Your task to perform on an android device: toggle notifications settings in the gmail app Image 0: 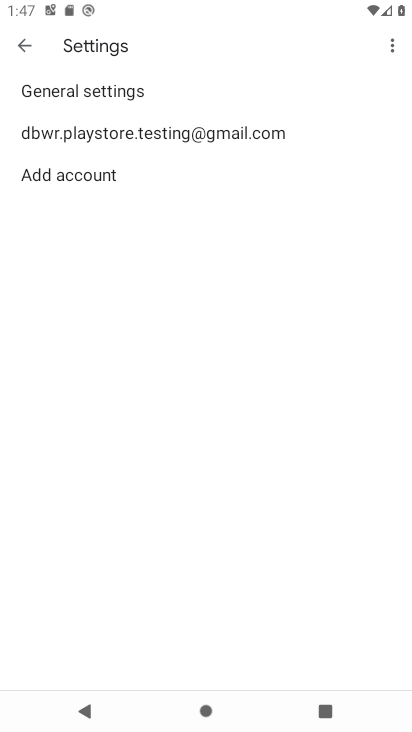
Step 0: click (92, 100)
Your task to perform on an android device: toggle notifications settings in the gmail app Image 1: 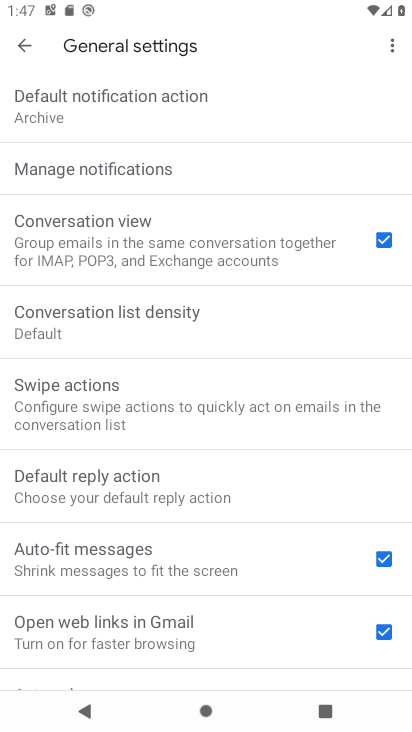
Step 1: click (108, 169)
Your task to perform on an android device: toggle notifications settings in the gmail app Image 2: 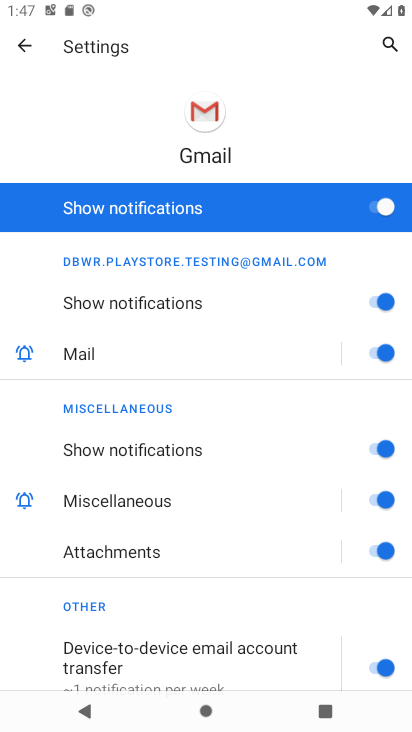
Step 2: click (374, 207)
Your task to perform on an android device: toggle notifications settings in the gmail app Image 3: 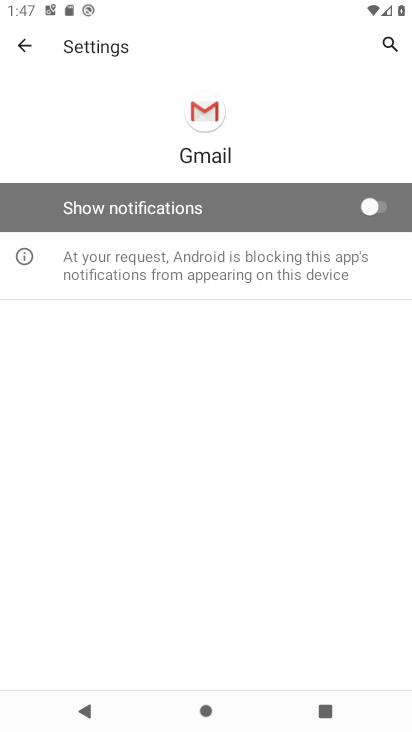
Step 3: task complete